Your task to perform on an android device: toggle improve location accuracy Image 0: 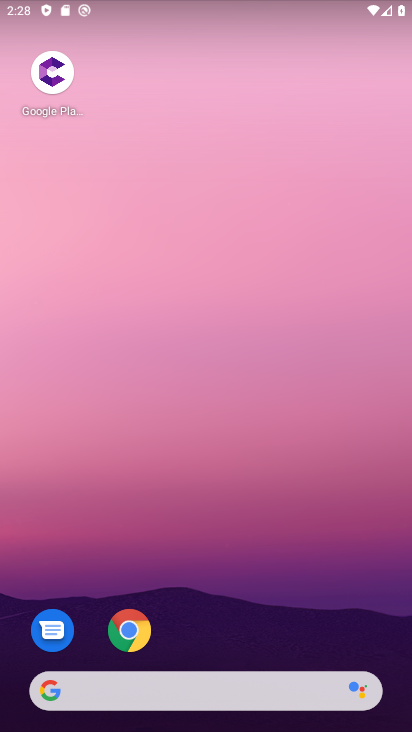
Step 0: drag from (231, 711) to (379, 138)
Your task to perform on an android device: toggle improve location accuracy Image 1: 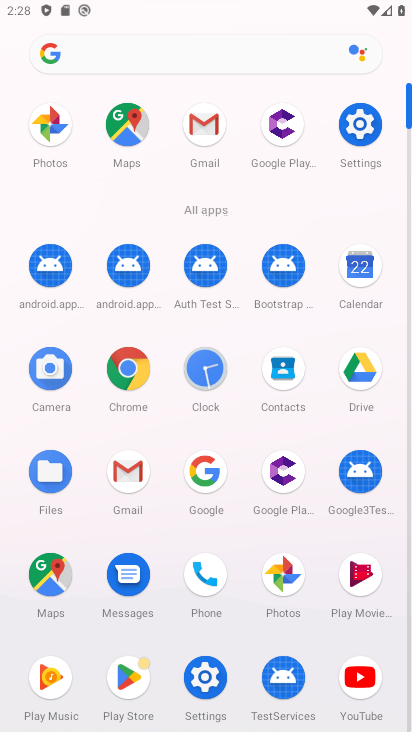
Step 1: click (369, 126)
Your task to perform on an android device: toggle improve location accuracy Image 2: 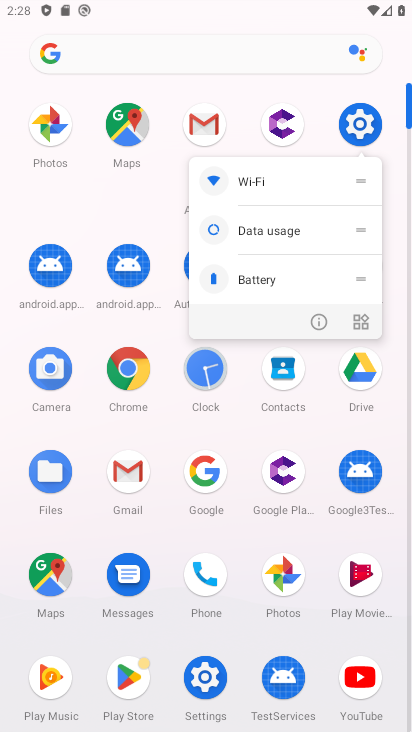
Step 2: click (356, 125)
Your task to perform on an android device: toggle improve location accuracy Image 3: 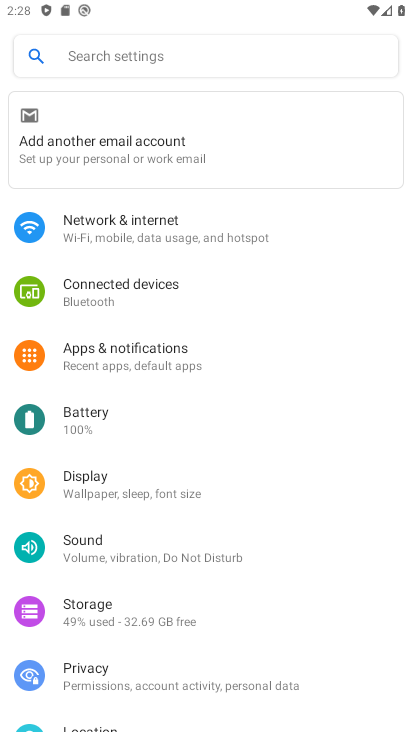
Step 3: click (89, 716)
Your task to perform on an android device: toggle improve location accuracy Image 4: 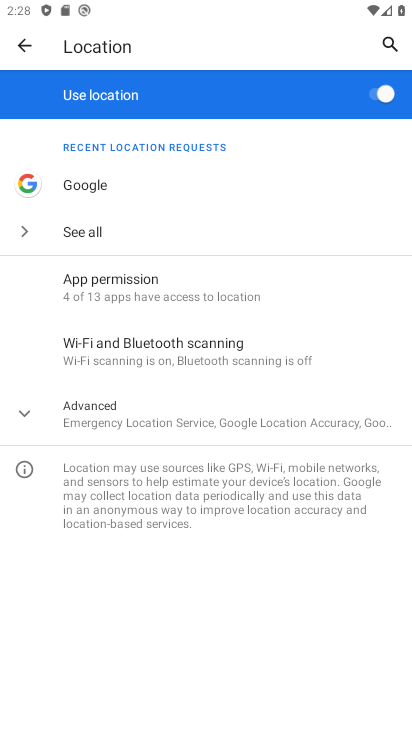
Step 4: click (27, 416)
Your task to perform on an android device: toggle improve location accuracy Image 5: 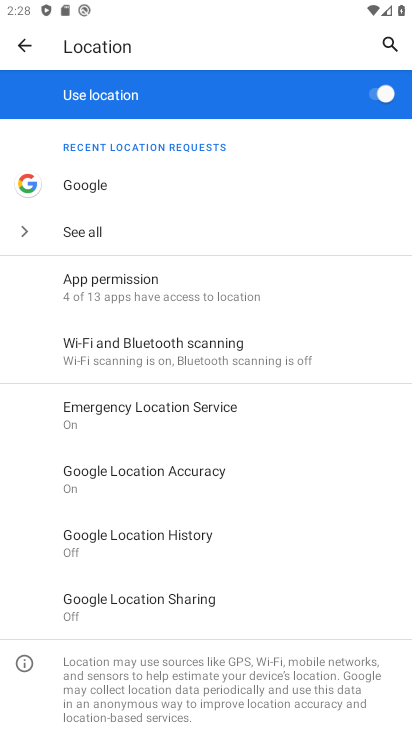
Step 5: click (127, 469)
Your task to perform on an android device: toggle improve location accuracy Image 6: 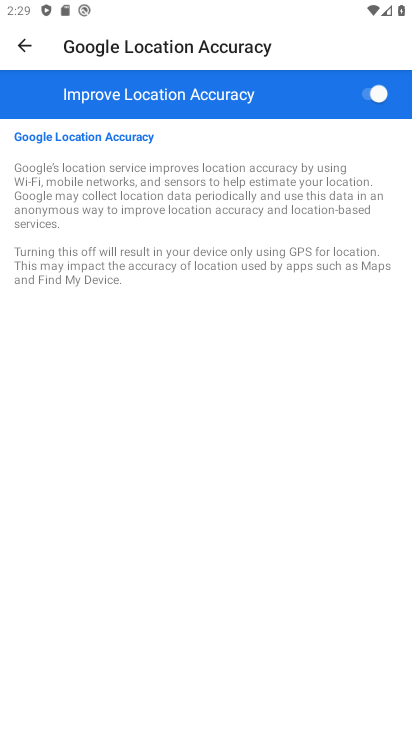
Step 6: task complete